Your task to perform on an android device: Check the settings for the Google Play Music app Image 0: 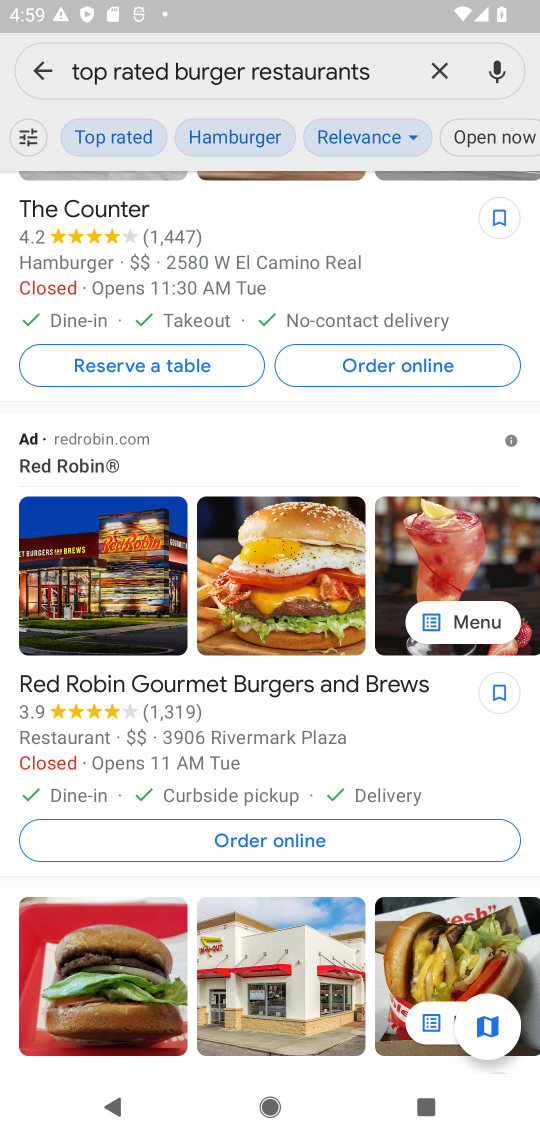
Step 0: press home button
Your task to perform on an android device: Check the settings for the Google Play Music app Image 1: 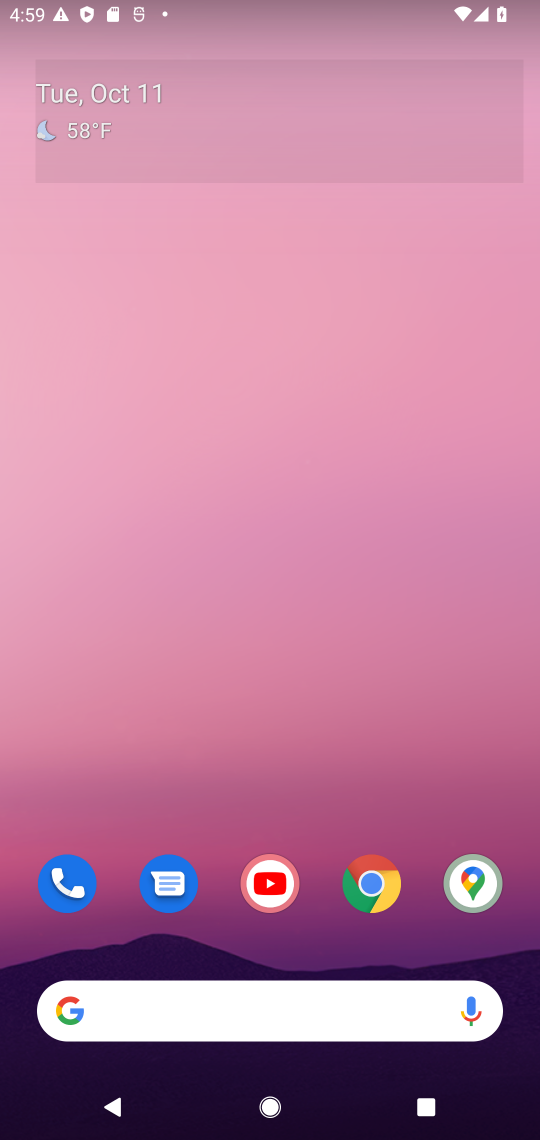
Step 1: task complete